Your task to perform on an android device: show emergency info Image 0: 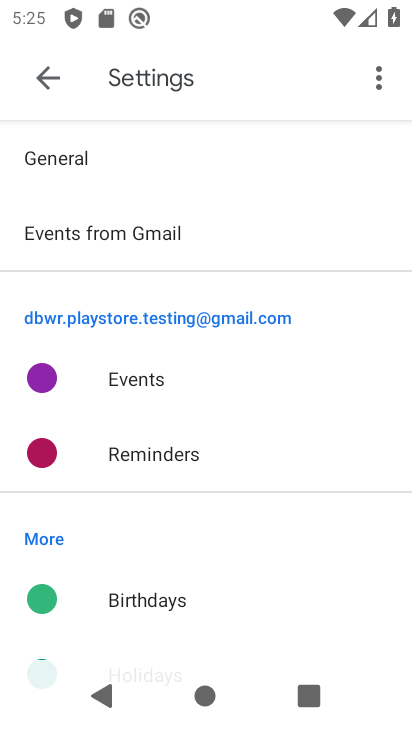
Step 0: press home button
Your task to perform on an android device: show emergency info Image 1: 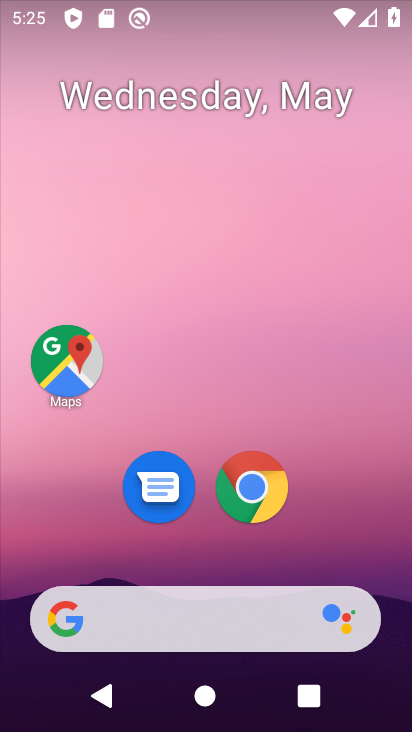
Step 1: drag from (268, 560) to (143, 43)
Your task to perform on an android device: show emergency info Image 2: 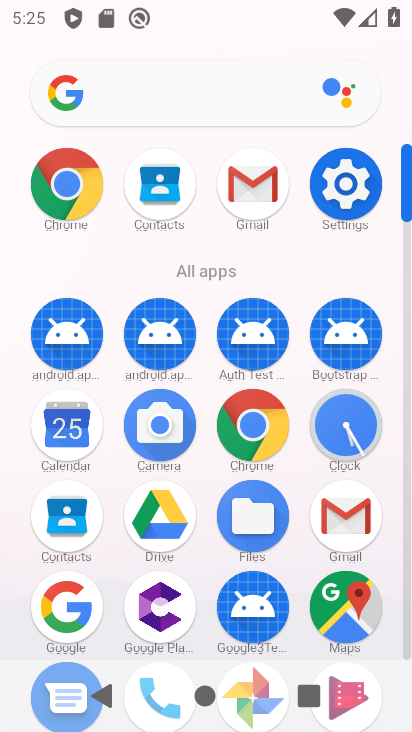
Step 2: click (333, 190)
Your task to perform on an android device: show emergency info Image 3: 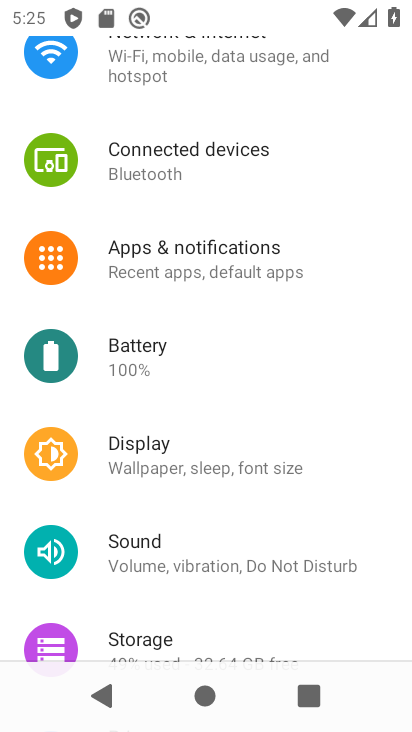
Step 3: drag from (146, 620) to (150, 122)
Your task to perform on an android device: show emergency info Image 4: 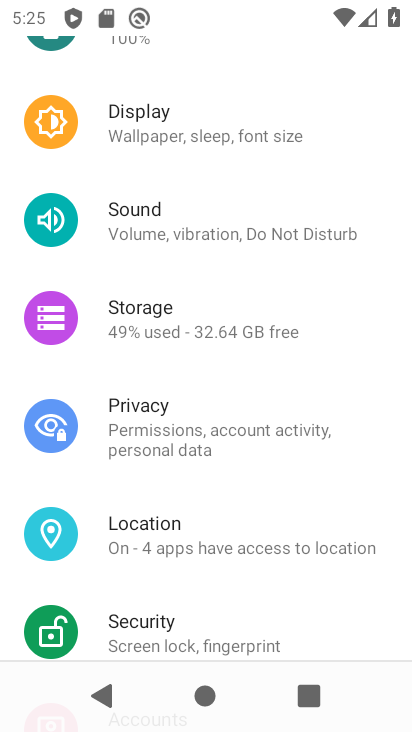
Step 4: drag from (172, 591) to (137, 28)
Your task to perform on an android device: show emergency info Image 5: 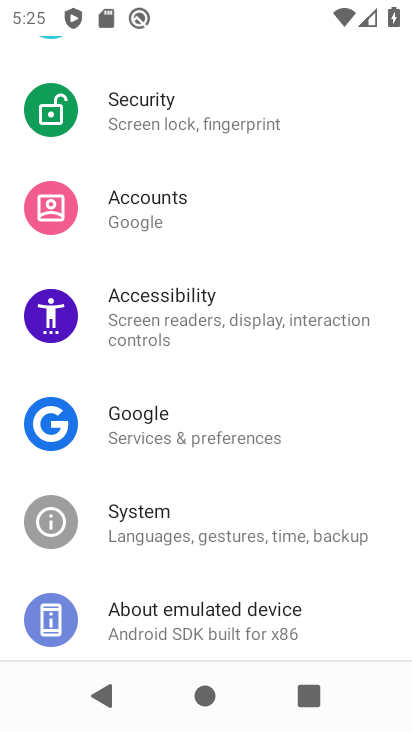
Step 5: click (141, 623)
Your task to perform on an android device: show emergency info Image 6: 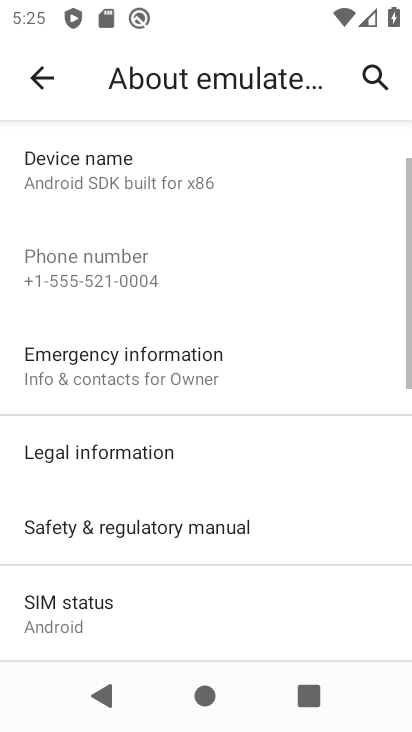
Step 6: click (120, 375)
Your task to perform on an android device: show emergency info Image 7: 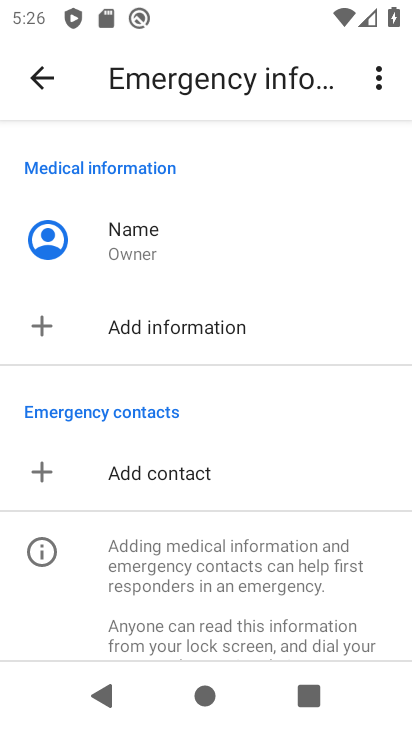
Step 7: task complete